Your task to perform on an android device: find which apps use the phone's location Image 0: 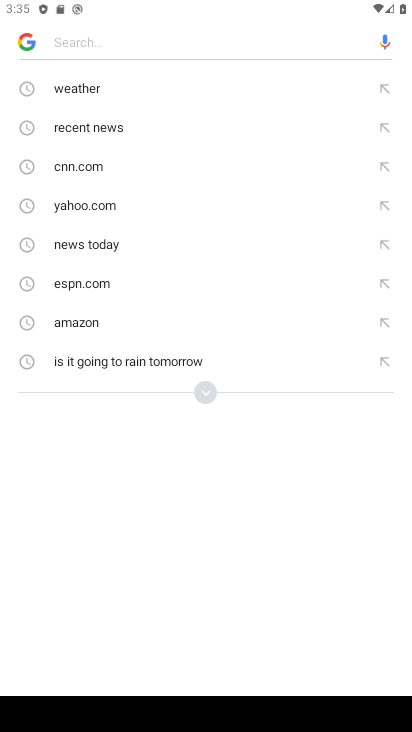
Step 0: press back button
Your task to perform on an android device: find which apps use the phone's location Image 1: 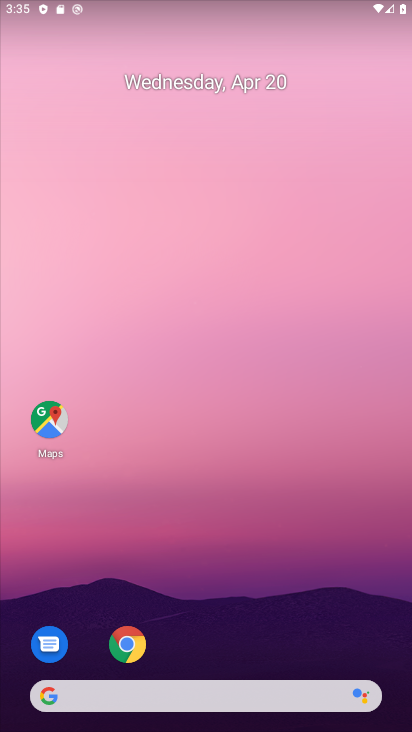
Step 1: drag from (202, 583) to (300, 154)
Your task to perform on an android device: find which apps use the phone's location Image 2: 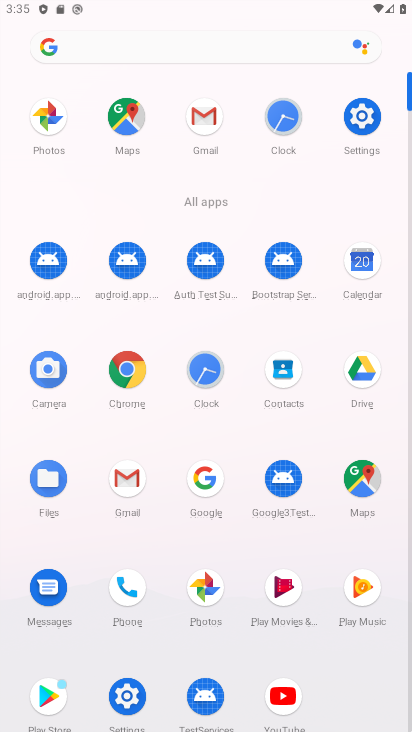
Step 2: click (124, 694)
Your task to perform on an android device: find which apps use the phone's location Image 3: 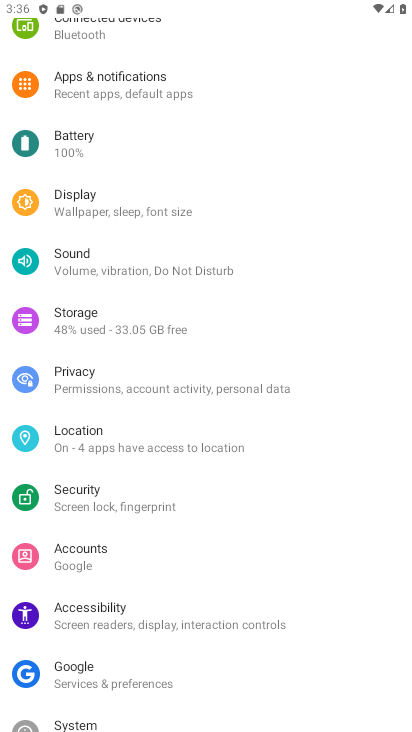
Step 3: click (150, 447)
Your task to perform on an android device: find which apps use the phone's location Image 4: 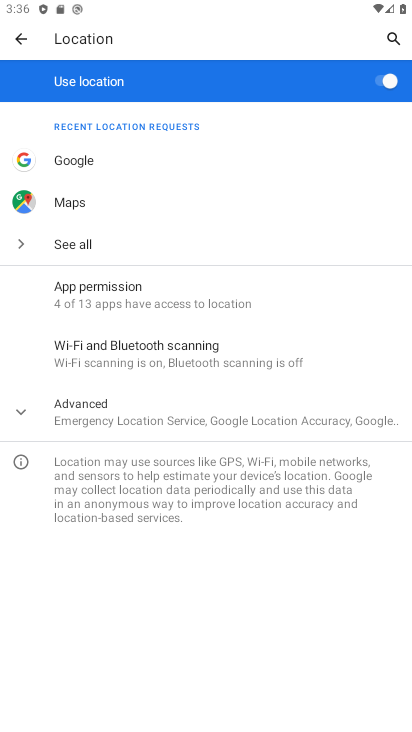
Step 4: click (136, 296)
Your task to perform on an android device: find which apps use the phone's location Image 5: 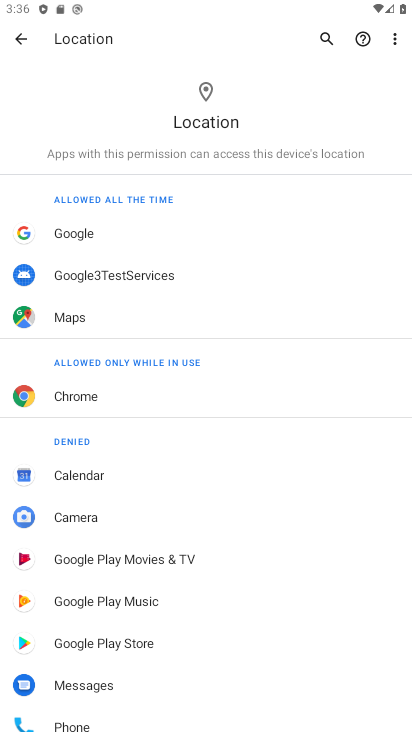
Step 5: task complete